Your task to perform on an android device: manage bookmarks in the chrome app Image 0: 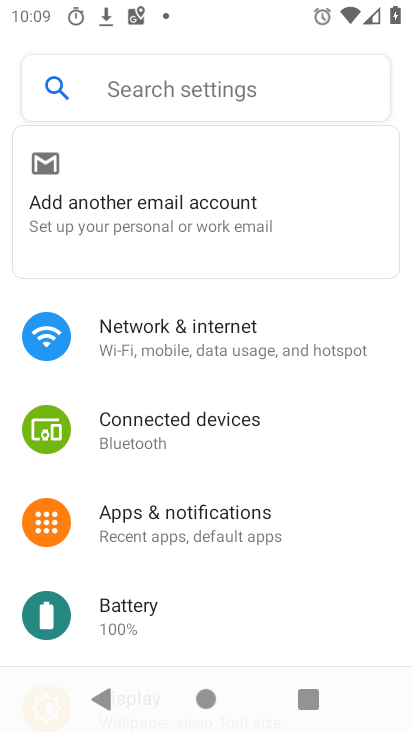
Step 0: press home button
Your task to perform on an android device: manage bookmarks in the chrome app Image 1: 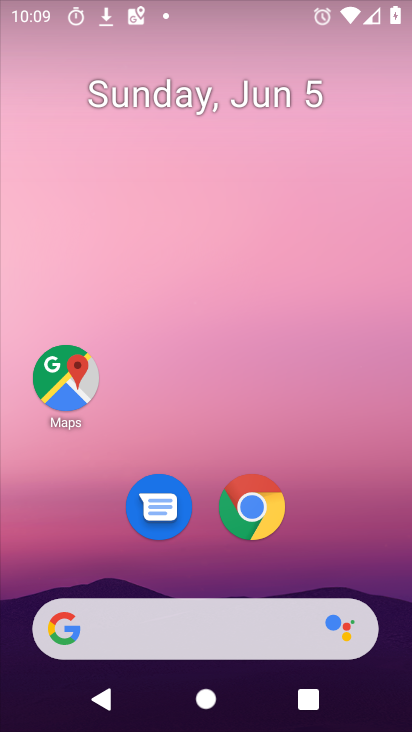
Step 1: drag from (206, 663) to (185, 245)
Your task to perform on an android device: manage bookmarks in the chrome app Image 2: 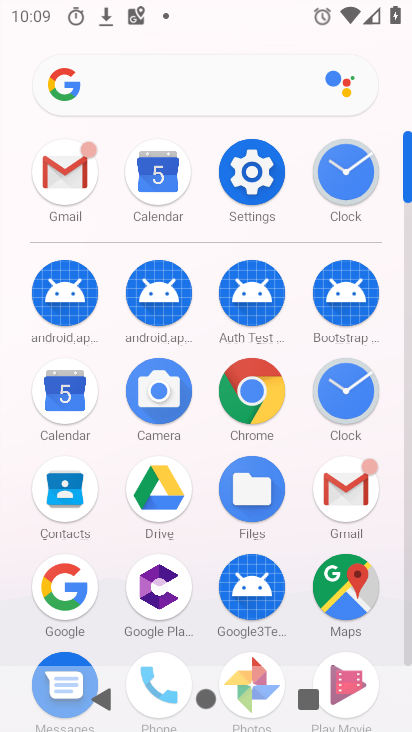
Step 2: click (255, 378)
Your task to perform on an android device: manage bookmarks in the chrome app Image 3: 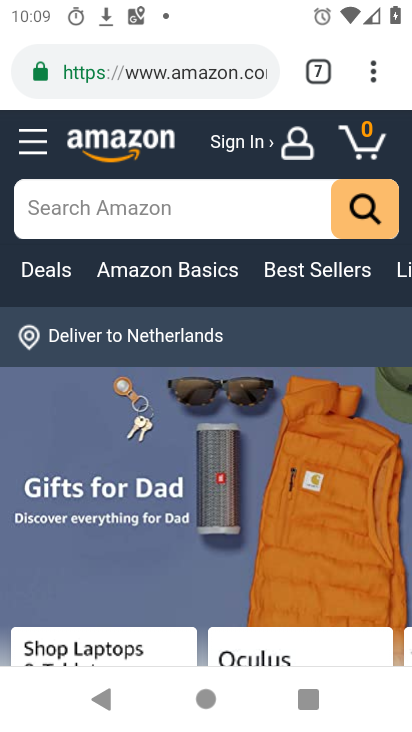
Step 3: click (359, 94)
Your task to perform on an android device: manage bookmarks in the chrome app Image 4: 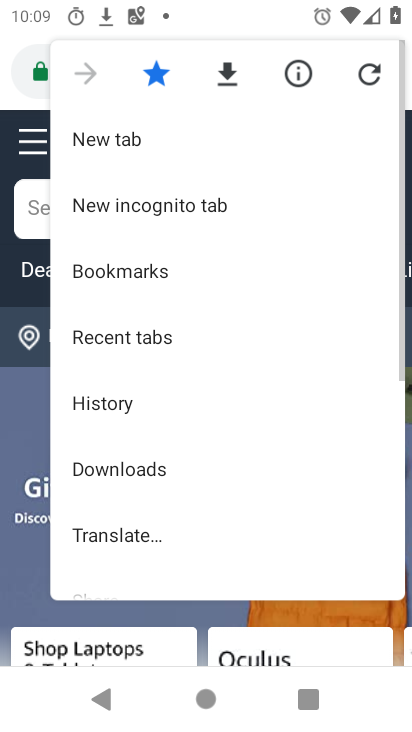
Step 4: click (121, 275)
Your task to perform on an android device: manage bookmarks in the chrome app Image 5: 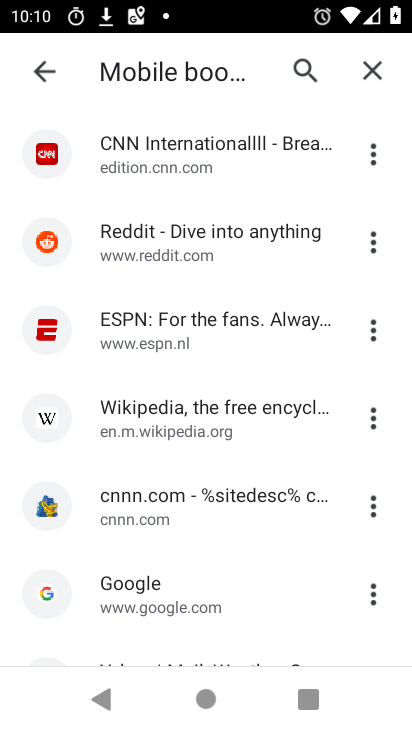
Step 5: task complete